Your task to perform on an android device: toggle location history Image 0: 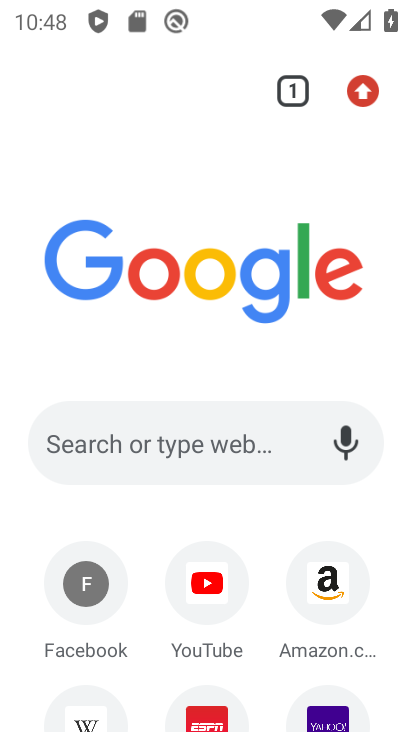
Step 0: press home button
Your task to perform on an android device: toggle location history Image 1: 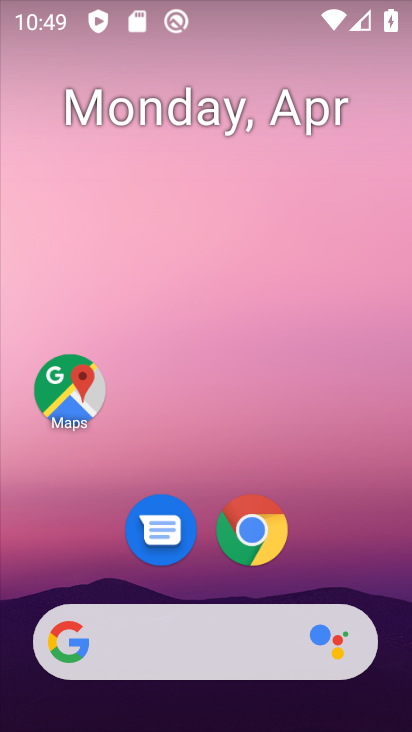
Step 1: drag from (353, 550) to (218, 11)
Your task to perform on an android device: toggle location history Image 2: 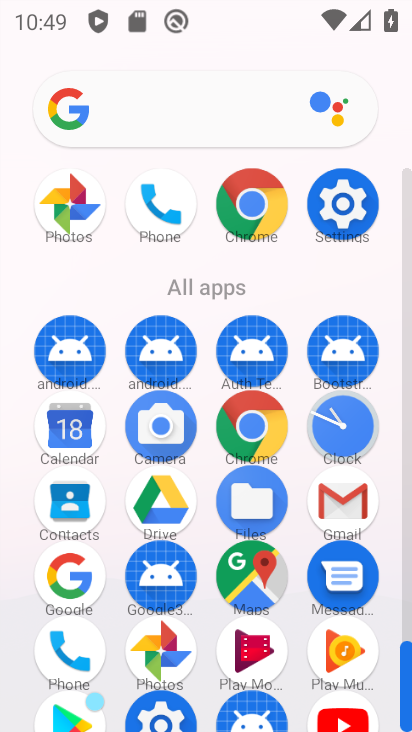
Step 2: click (357, 199)
Your task to perform on an android device: toggle location history Image 3: 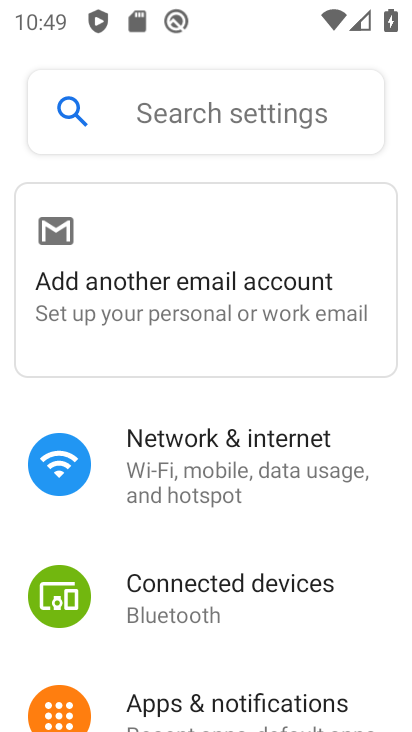
Step 3: drag from (195, 637) to (214, 177)
Your task to perform on an android device: toggle location history Image 4: 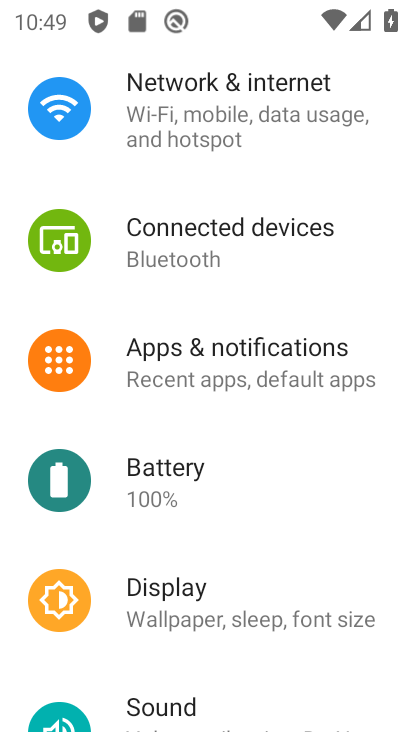
Step 4: drag from (210, 641) to (241, 175)
Your task to perform on an android device: toggle location history Image 5: 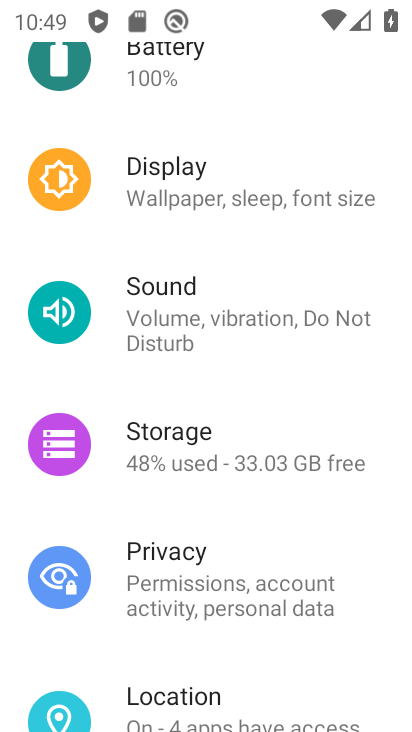
Step 5: click (183, 700)
Your task to perform on an android device: toggle location history Image 6: 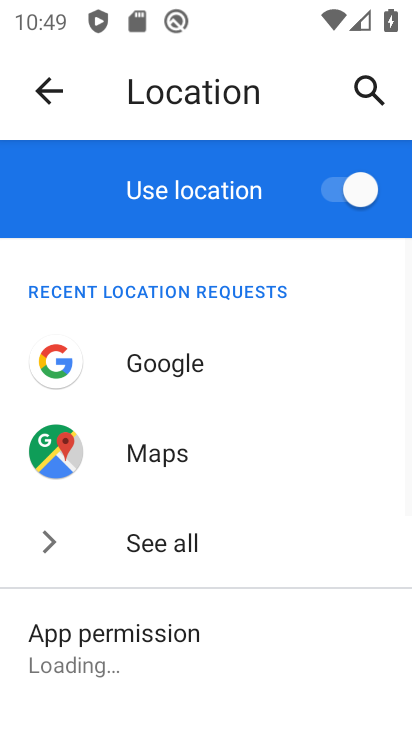
Step 6: drag from (219, 643) to (252, 99)
Your task to perform on an android device: toggle location history Image 7: 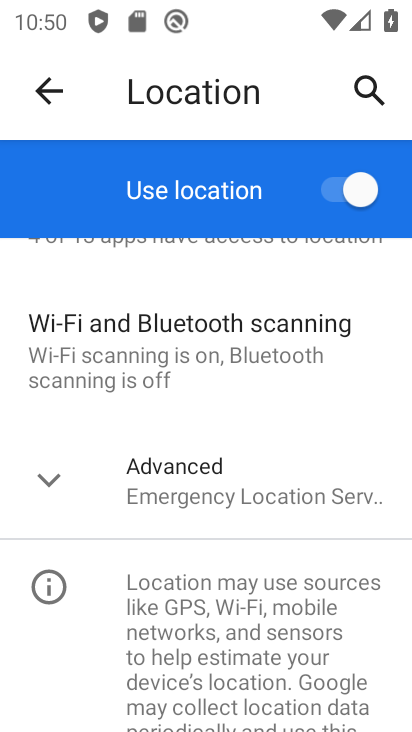
Step 7: click (57, 486)
Your task to perform on an android device: toggle location history Image 8: 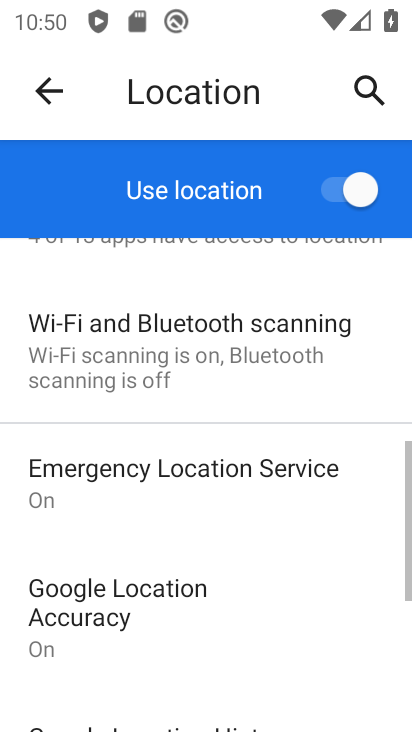
Step 8: drag from (161, 654) to (216, 270)
Your task to perform on an android device: toggle location history Image 9: 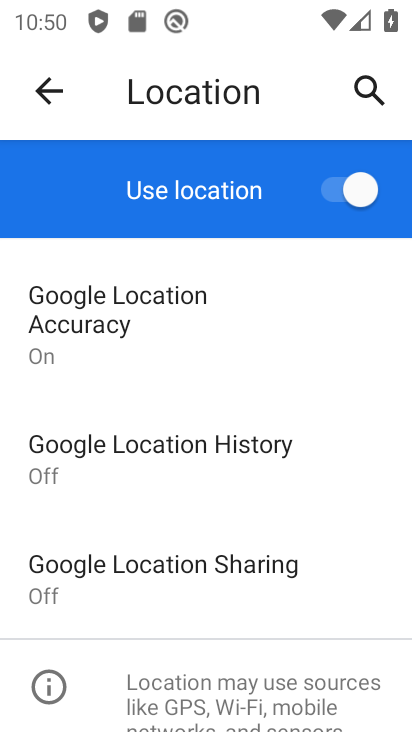
Step 9: click (168, 459)
Your task to perform on an android device: toggle location history Image 10: 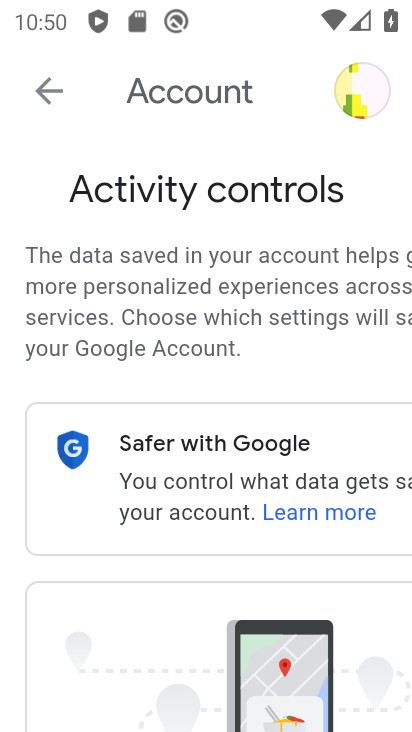
Step 10: drag from (340, 614) to (198, 106)
Your task to perform on an android device: toggle location history Image 11: 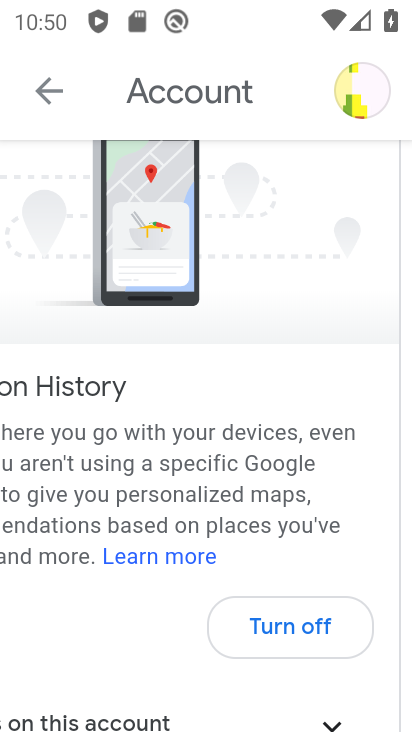
Step 11: click (275, 623)
Your task to perform on an android device: toggle location history Image 12: 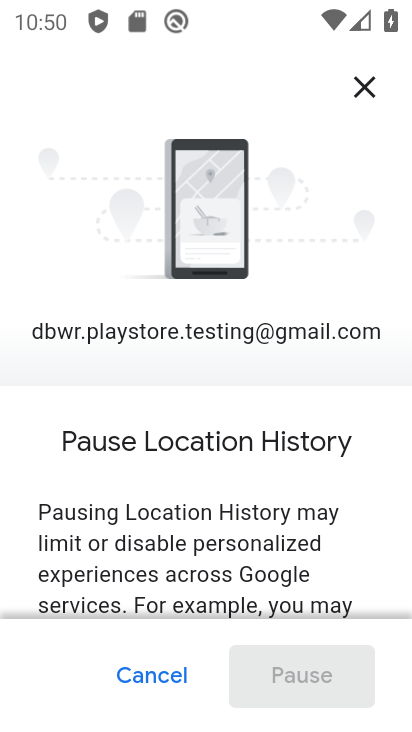
Step 12: task complete